Your task to perform on an android device: Search for Italian restaurants on Maps Image 0: 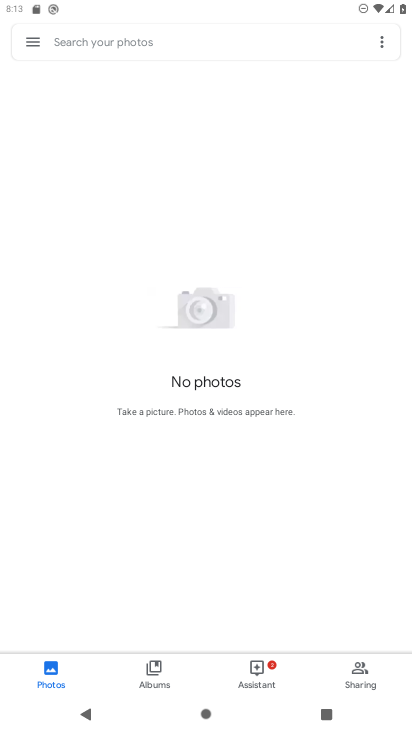
Step 0: press home button
Your task to perform on an android device: Search for Italian restaurants on Maps Image 1: 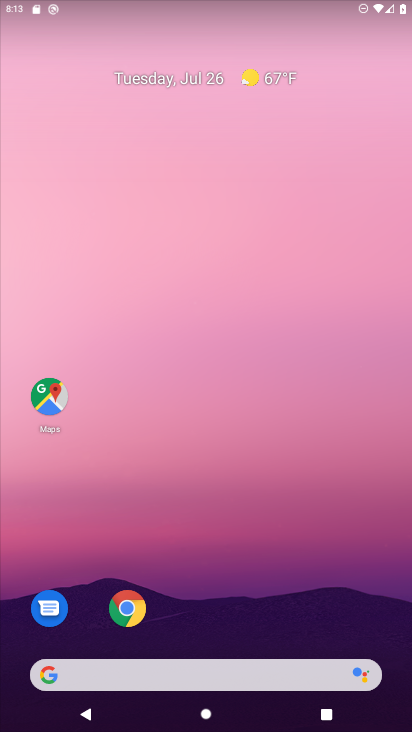
Step 1: click (40, 389)
Your task to perform on an android device: Search for Italian restaurants on Maps Image 2: 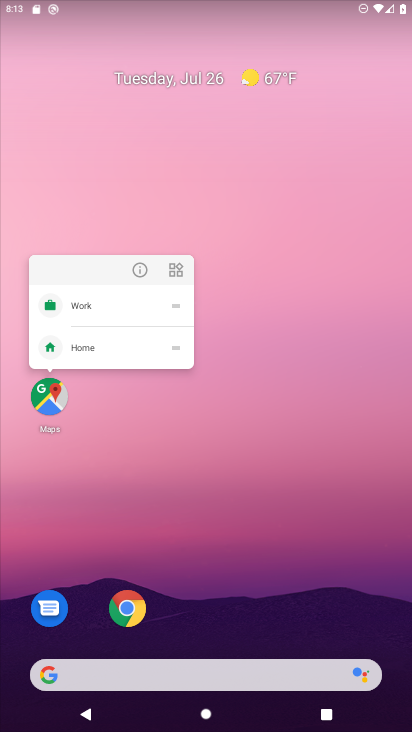
Step 2: click (47, 391)
Your task to perform on an android device: Search for Italian restaurants on Maps Image 3: 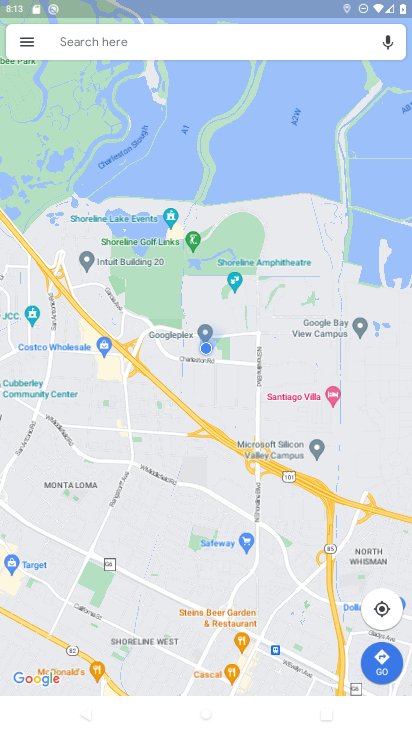
Step 3: click (171, 32)
Your task to perform on an android device: Search for Italian restaurants on Maps Image 4: 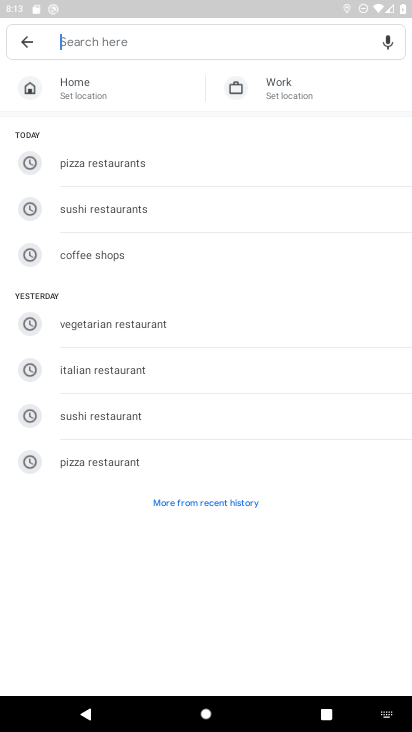
Step 4: type "italian restaurants"
Your task to perform on an android device: Search for Italian restaurants on Maps Image 5: 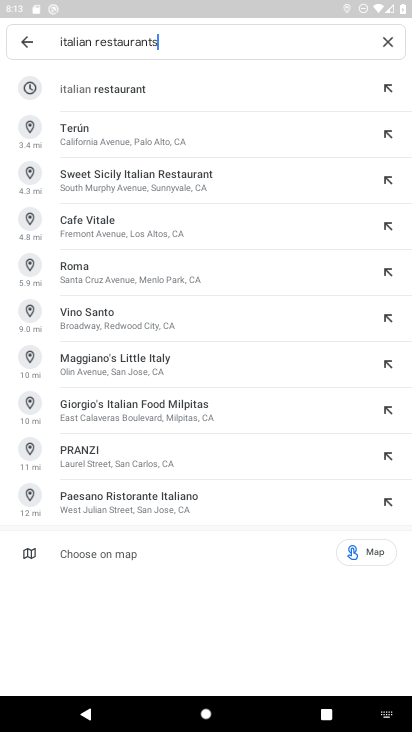
Step 5: click (155, 82)
Your task to perform on an android device: Search for Italian restaurants on Maps Image 6: 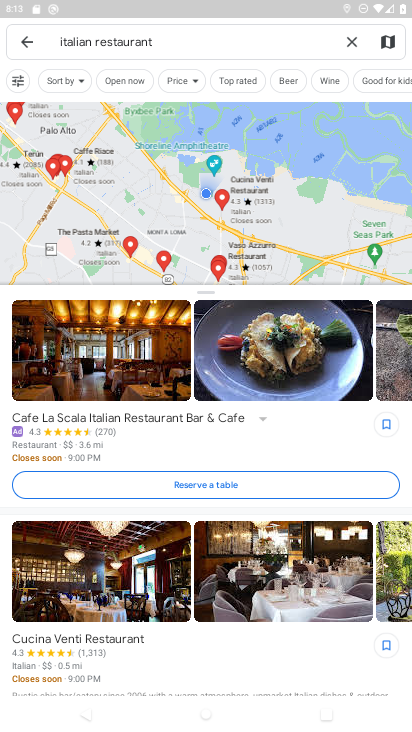
Step 6: task complete